Your task to perform on an android device: Search for razer deathadder on walmart.com, select the first entry, add it to the cart, then select checkout. Image 0: 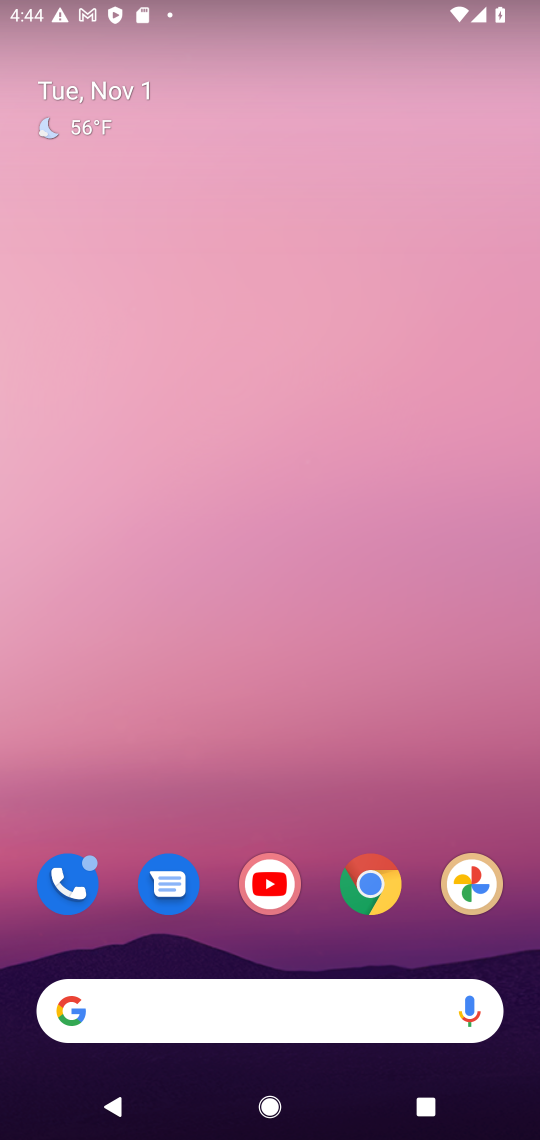
Step 0: click (374, 880)
Your task to perform on an android device: Search for razer deathadder on walmart.com, select the first entry, add it to the cart, then select checkout. Image 1: 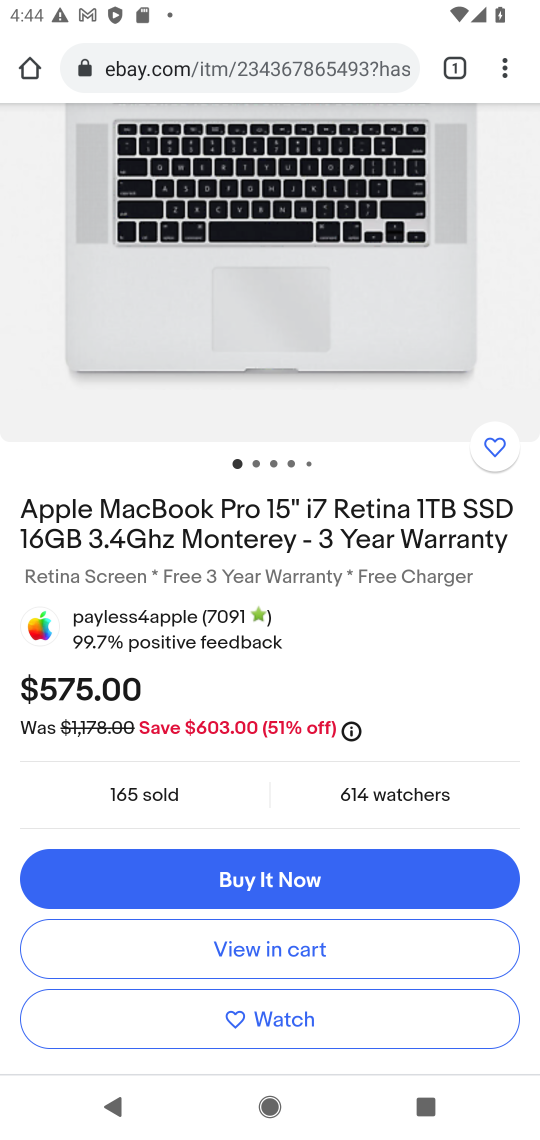
Step 1: click (236, 64)
Your task to perform on an android device: Search for razer deathadder on walmart.com, select the first entry, add it to the cart, then select checkout. Image 2: 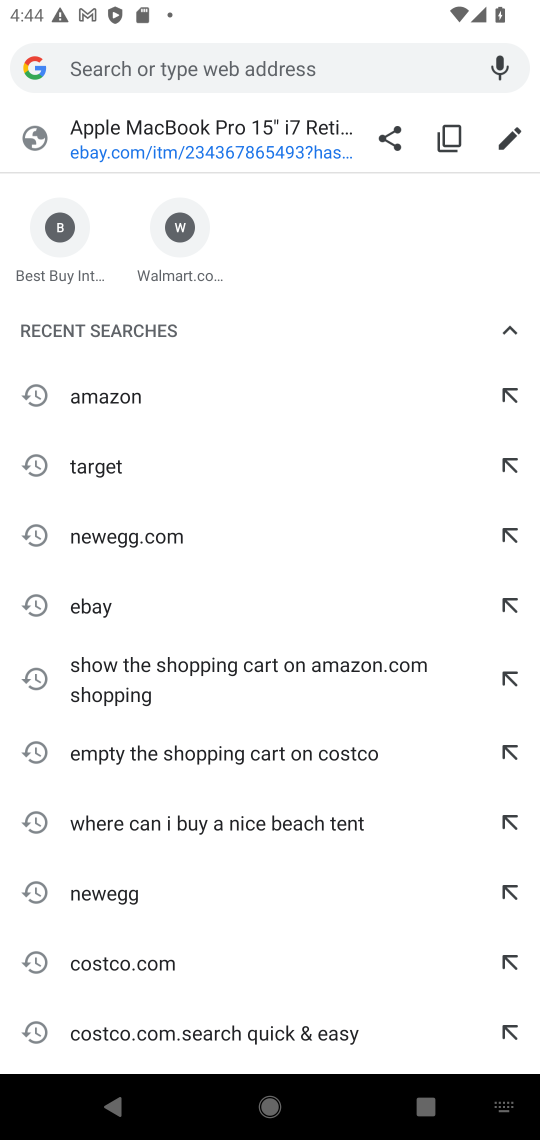
Step 2: type "walmart.com"
Your task to perform on an android device: Search for razer deathadder on walmart.com, select the first entry, add it to the cart, then select checkout. Image 3: 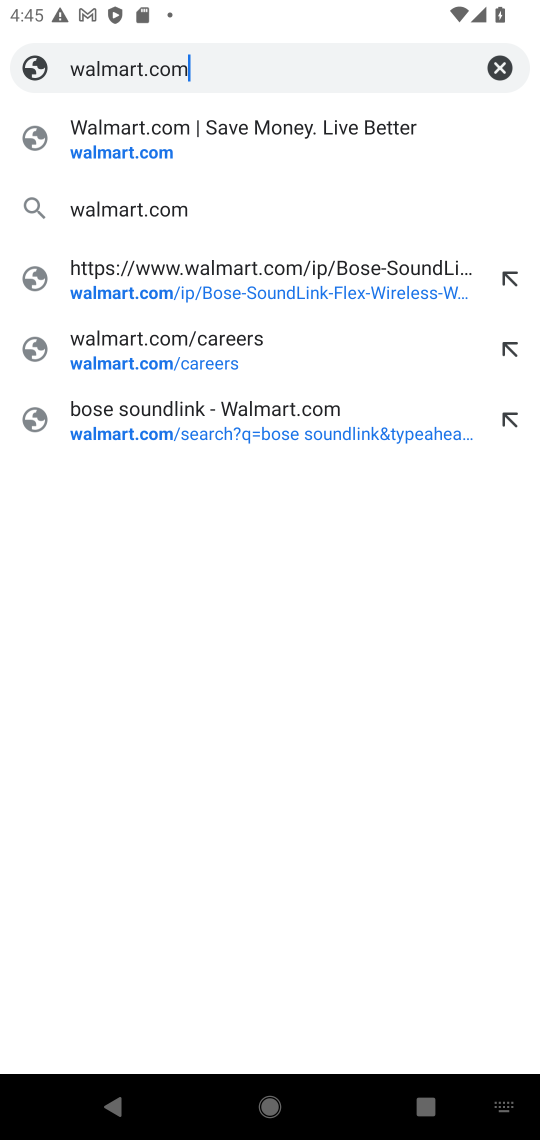
Step 3: click (206, 141)
Your task to perform on an android device: Search for razer deathadder on walmart.com, select the first entry, add it to the cart, then select checkout. Image 4: 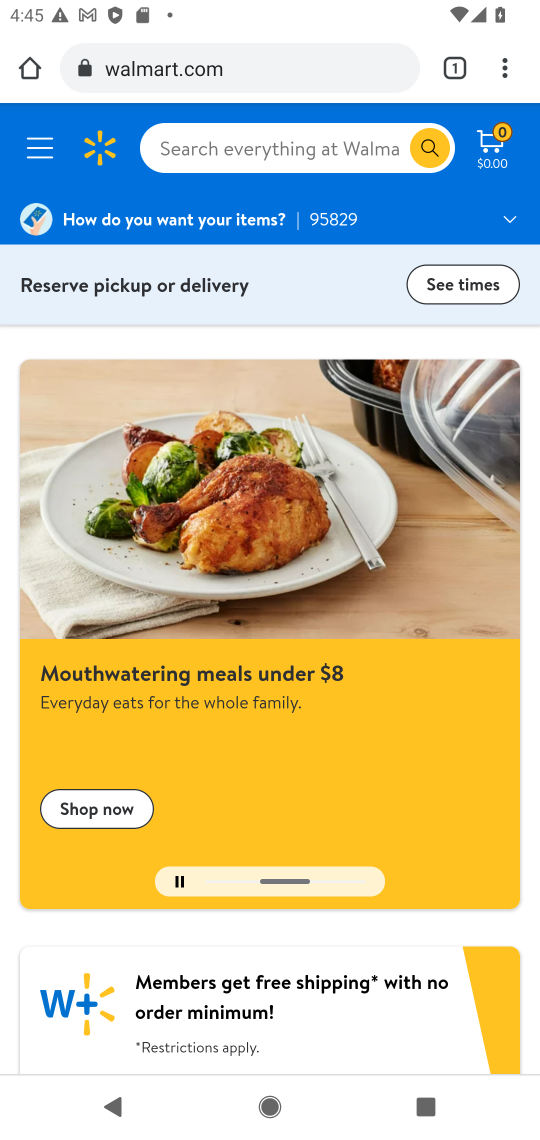
Step 4: click (288, 128)
Your task to perform on an android device: Search for razer deathadder on walmart.com, select the first entry, add it to the cart, then select checkout. Image 5: 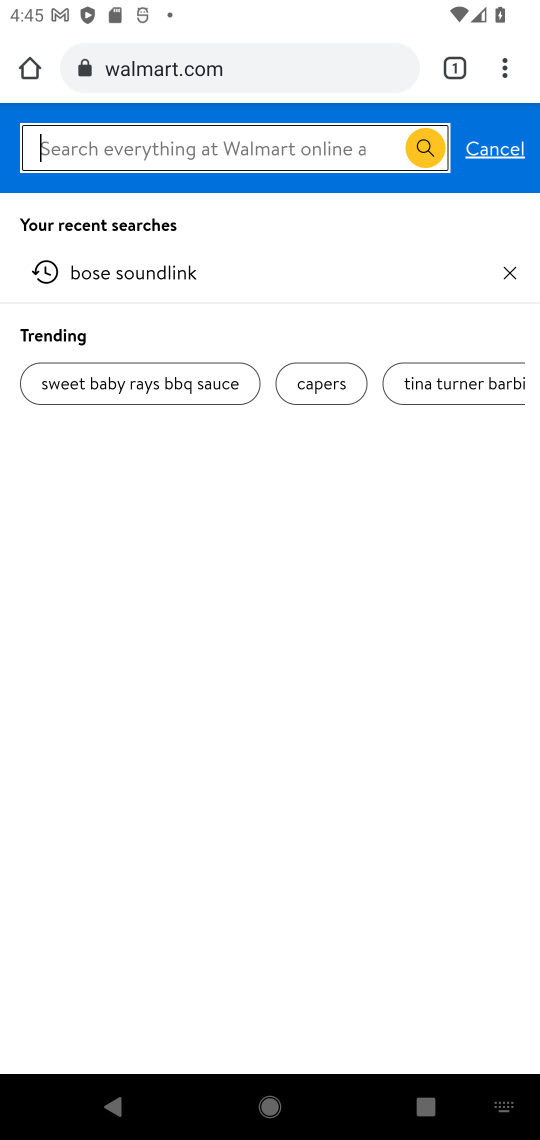
Step 5: type "Razer deathadder"
Your task to perform on an android device: Search for razer deathadder on walmart.com, select the first entry, add it to the cart, then select checkout. Image 6: 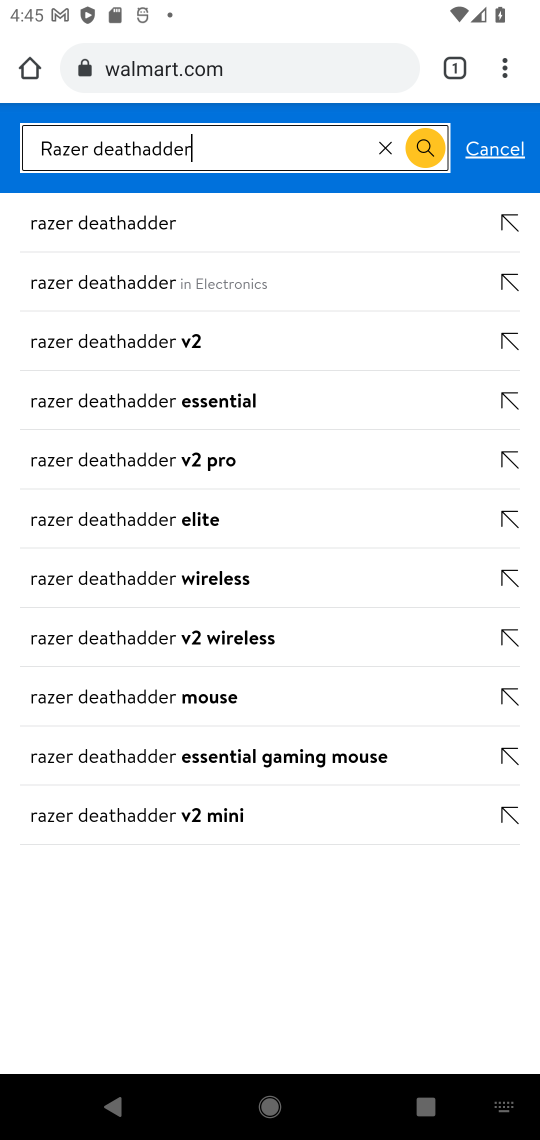
Step 6: click (420, 156)
Your task to perform on an android device: Search for razer deathadder on walmart.com, select the first entry, add it to the cart, then select checkout. Image 7: 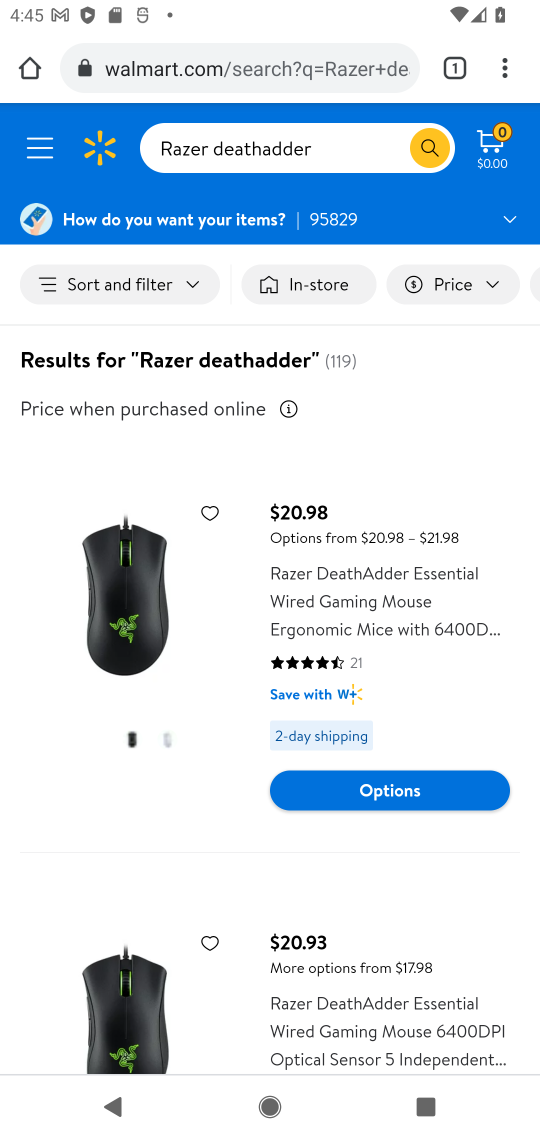
Step 7: click (360, 795)
Your task to perform on an android device: Search for razer deathadder on walmart.com, select the first entry, add it to the cart, then select checkout. Image 8: 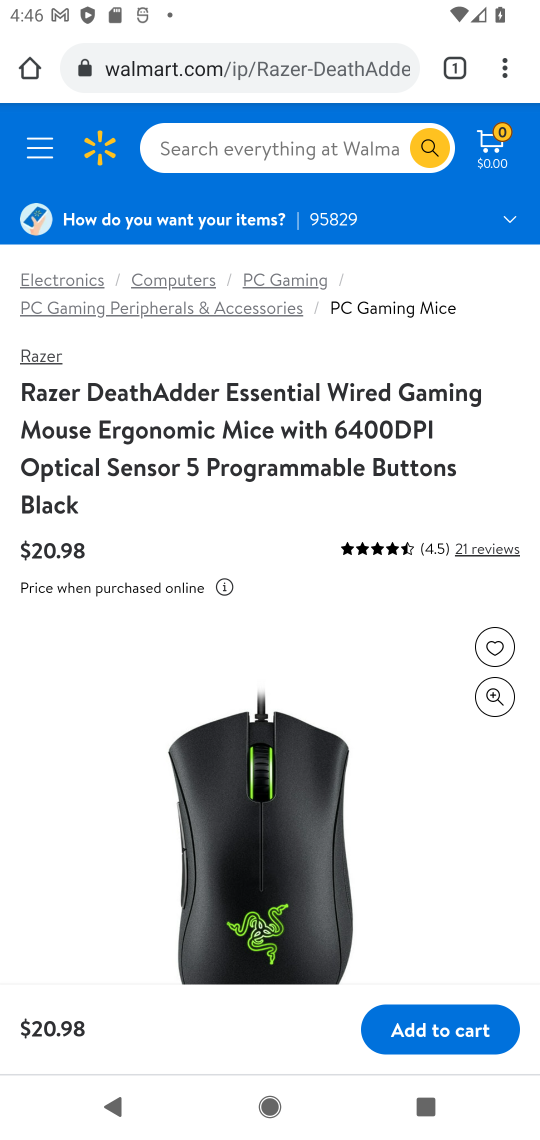
Step 8: click (432, 1029)
Your task to perform on an android device: Search for razer deathadder on walmart.com, select the first entry, add it to the cart, then select checkout. Image 9: 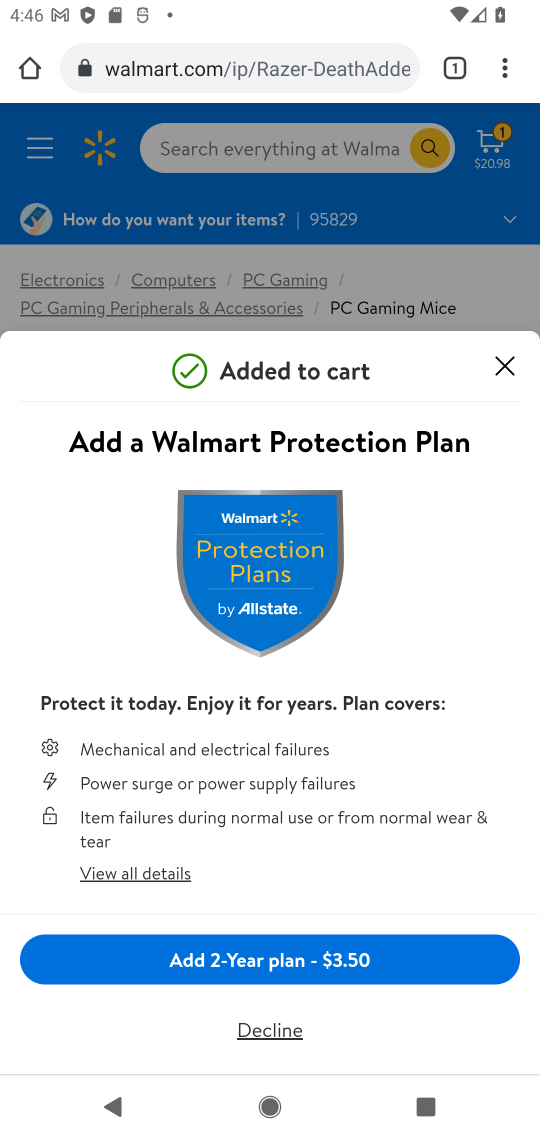
Step 9: click (280, 1031)
Your task to perform on an android device: Search for razer deathadder on walmart.com, select the first entry, add it to the cart, then select checkout. Image 10: 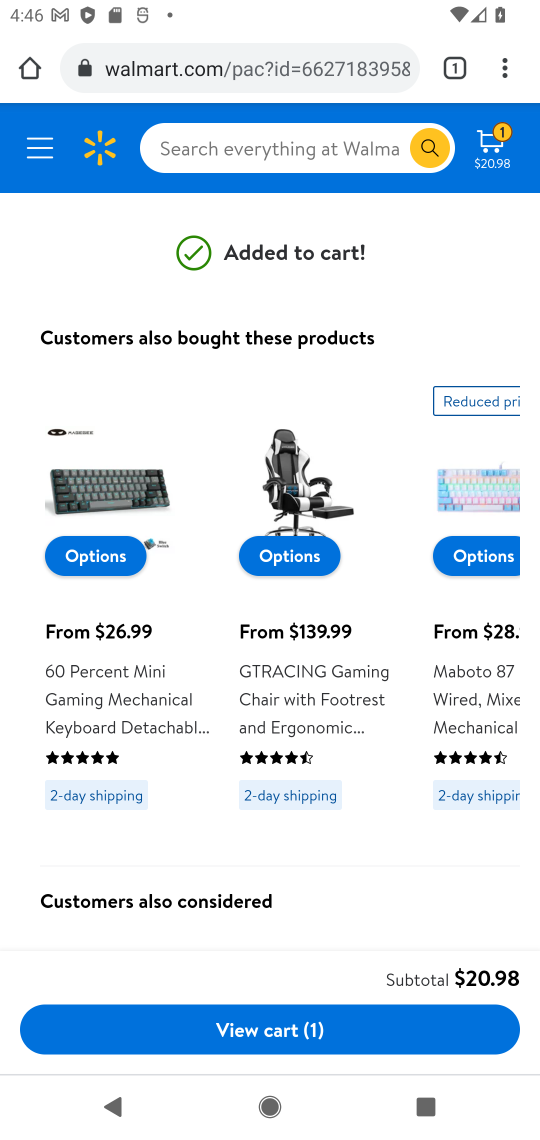
Step 10: click (338, 1029)
Your task to perform on an android device: Search for razer deathadder on walmart.com, select the first entry, add it to the cart, then select checkout. Image 11: 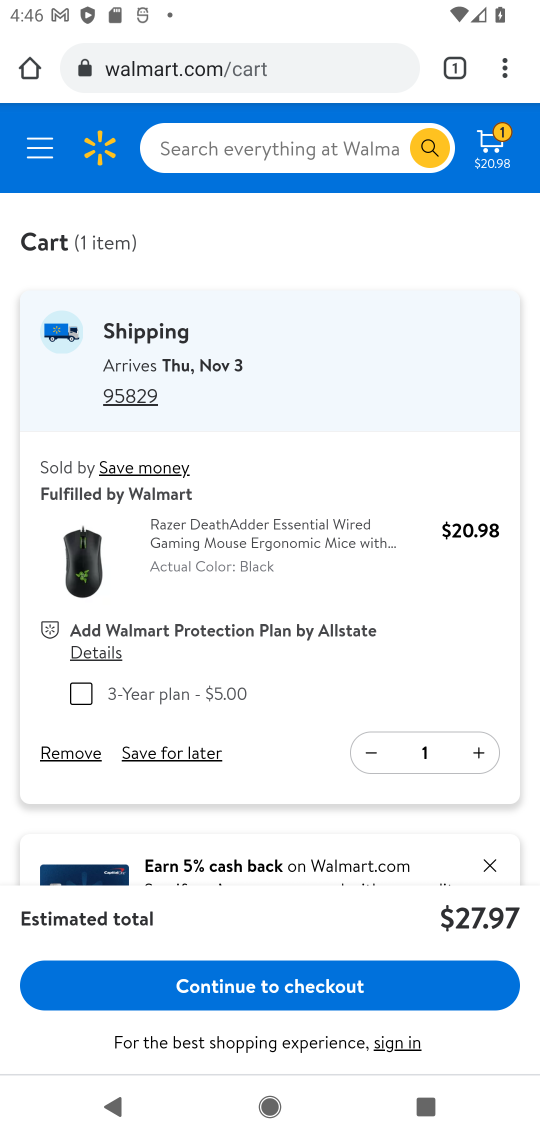
Step 11: click (256, 989)
Your task to perform on an android device: Search for razer deathadder on walmart.com, select the first entry, add it to the cart, then select checkout. Image 12: 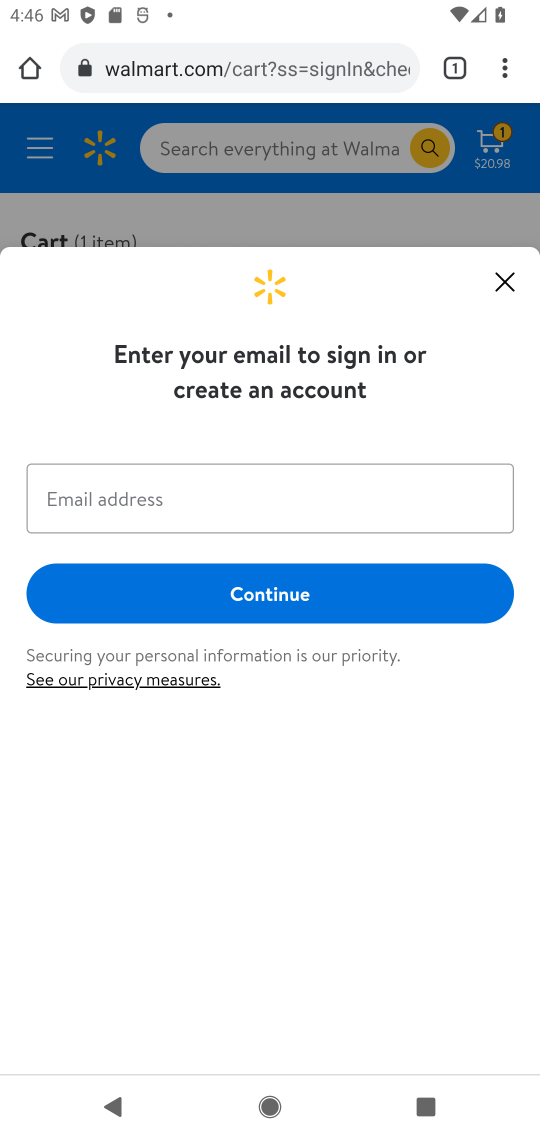
Step 12: task complete